Your task to perform on an android device: open the mobile data screen to see how much data has been used Image 0: 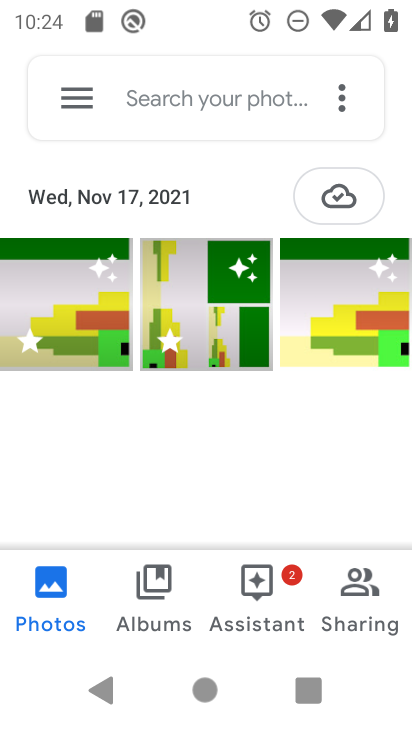
Step 0: click (88, 103)
Your task to perform on an android device: open the mobile data screen to see how much data has been used Image 1: 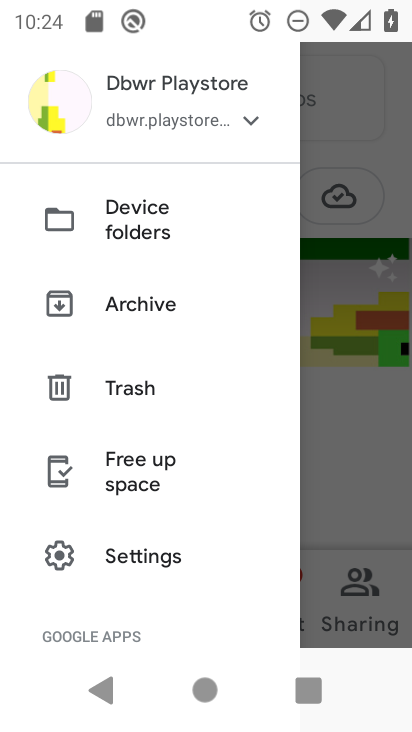
Step 1: press home button
Your task to perform on an android device: open the mobile data screen to see how much data has been used Image 2: 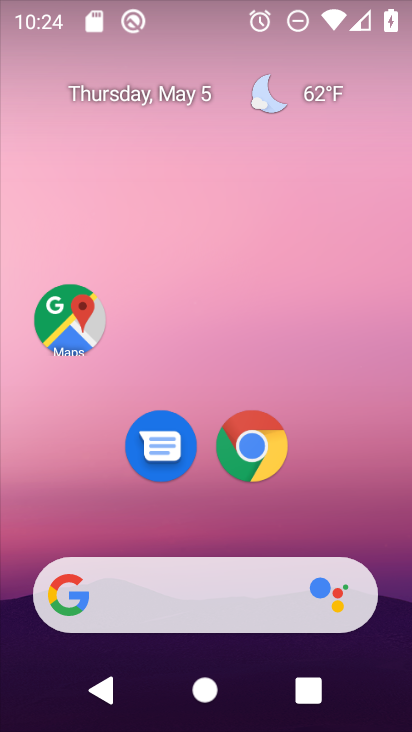
Step 2: drag from (267, 609) to (218, 238)
Your task to perform on an android device: open the mobile data screen to see how much data has been used Image 3: 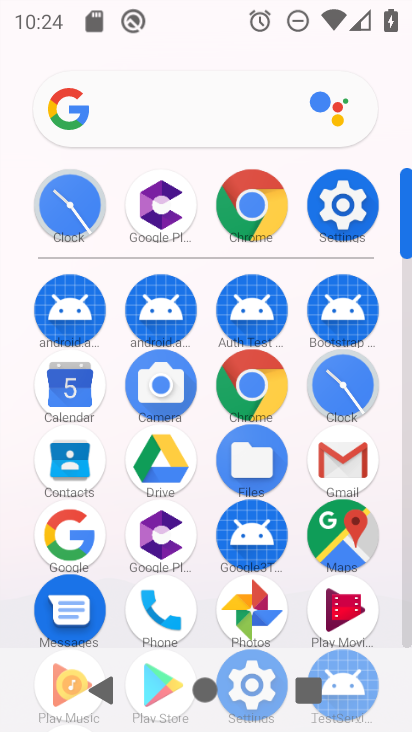
Step 3: click (343, 197)
Your task to perform on an android device: open the mobile data screen to see how much data has been used Image 4: 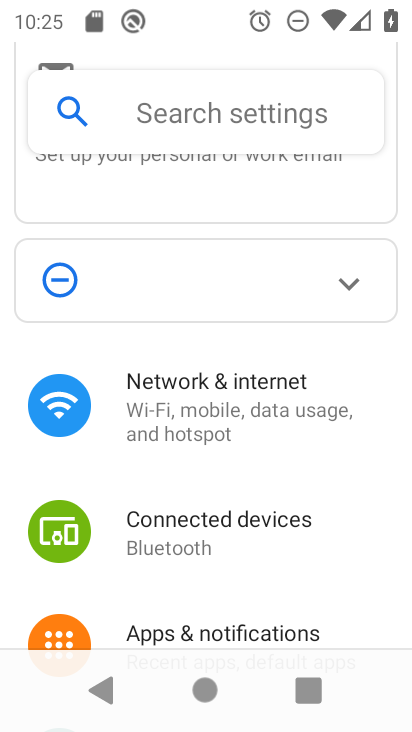
Step 4: click (214, 118)
Your task to perform on an android device: open the mobile data screen to see how much data has been used Image 5: 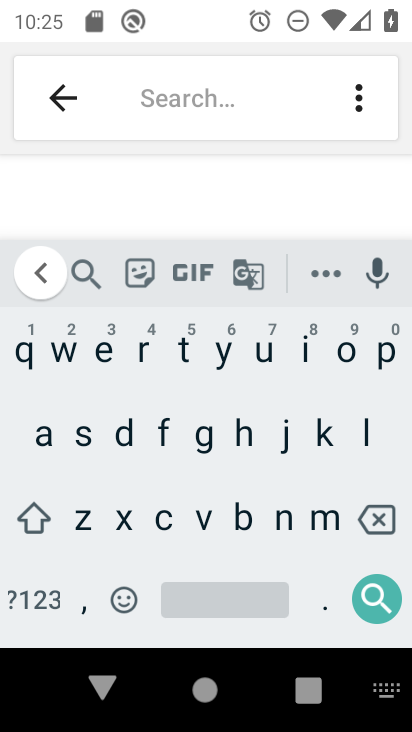
Step 5: click (120, 439)
Your task to perform on an android device: open the mobile data screen to see how much data has been used Image 6: 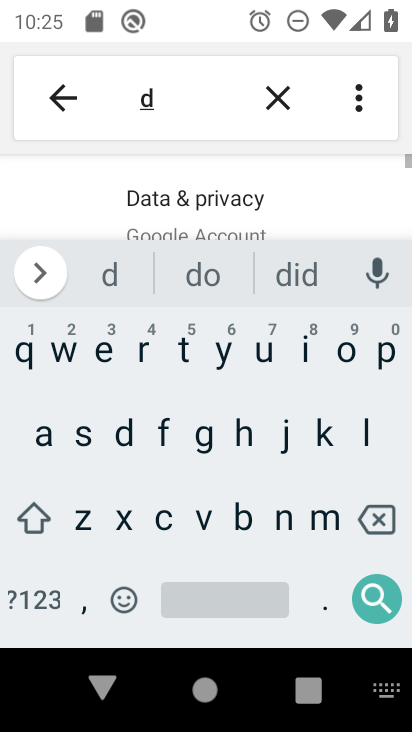
Step 6: click (48, 432)
Your task to perform on an android device: open the mobile data screen to see how much data has been used Image 7: 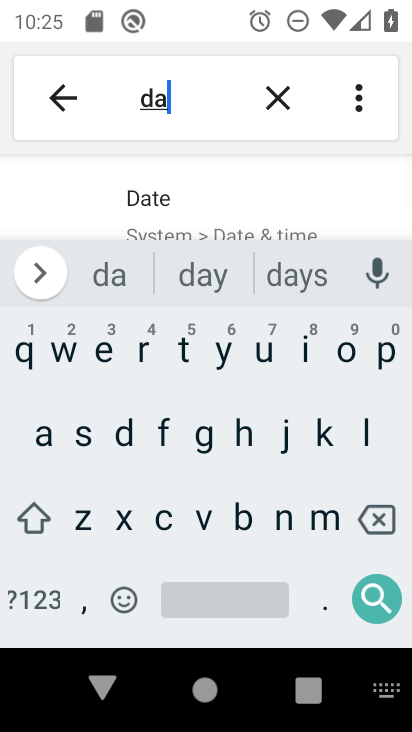
Step 7: click (186, 359)
Your task to perform on an android device: open the mobile data screen to see how much data has been used Image 8: 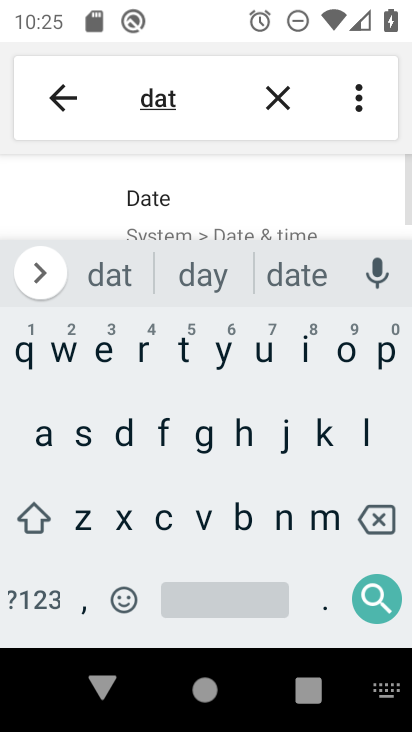
Step 8: click (37, 431)
Your task to perform on an android device: open the mobile data screen to see how much data has been used Image 9: 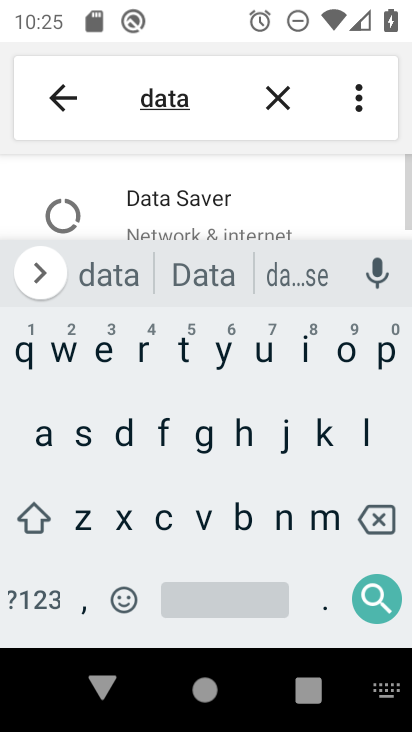
Step 9: click (227, 597)
Your task to perform on an android device: open the mobile data screen to see how much data has been used Image 10: 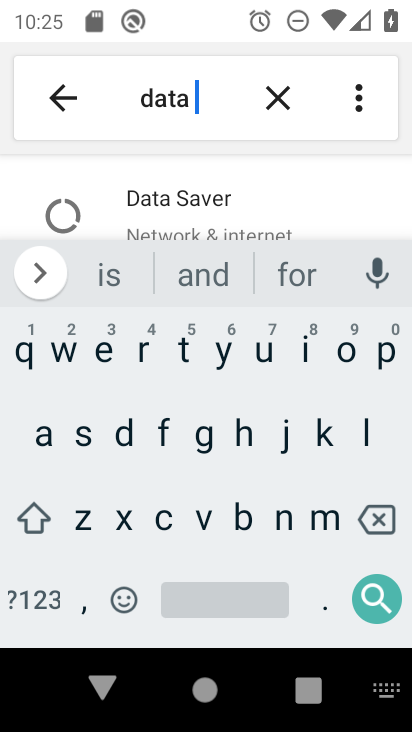
Step 10: click (259, 354)
Your task to perform on an android device: open the mobile data screen to see how much data has been used Image 11: 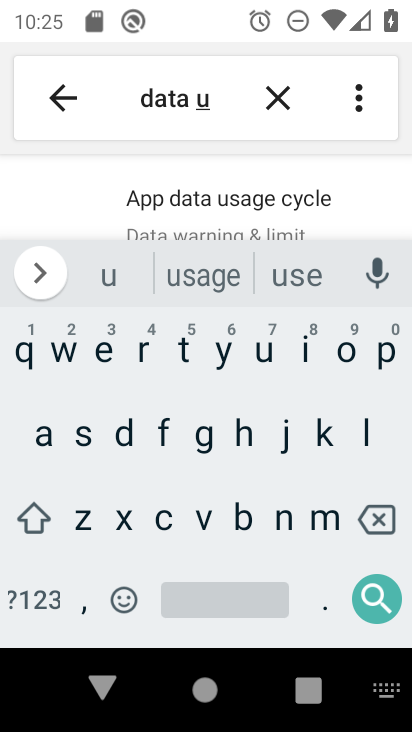
Step 11: press back button
Your task to perform on an android device: open the mobile data screen to see how much data has been used Image 12: 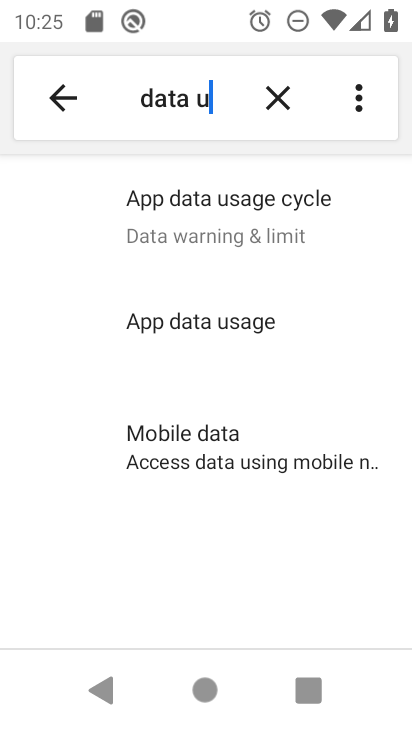
Step 12: click (193, 328)
Your task to perform on an android device: open the mobile data screen to see how much data has been used Image 13: 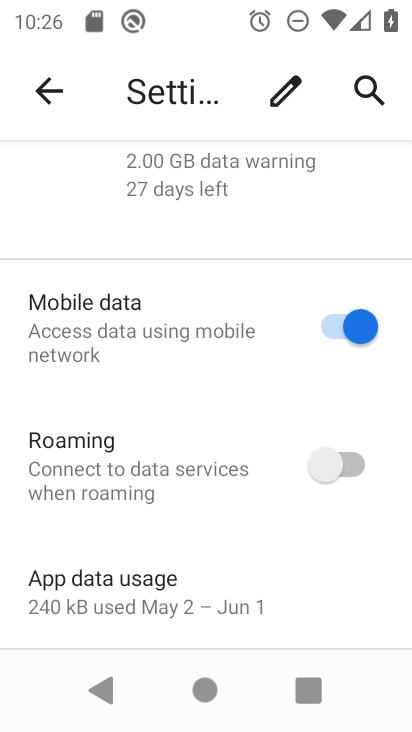
Step 13: click (157, 585)
Your task to perform on an android device: open the mobile data screen to see how much data has been used Image 14: 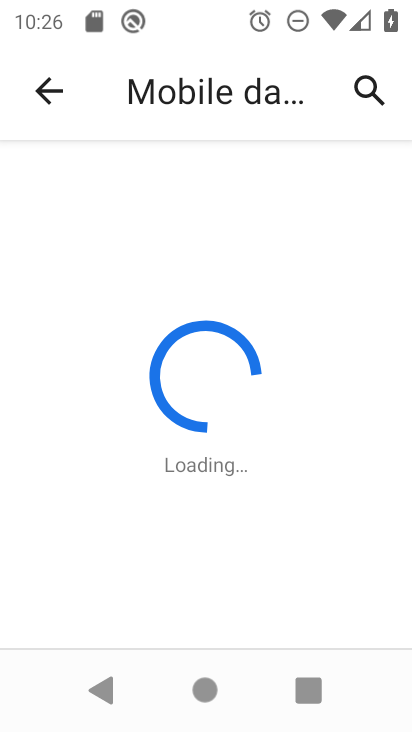
Step 14: task complete